Your task to perform on an android device: turn off priority inbox in the gmail app Image 0: 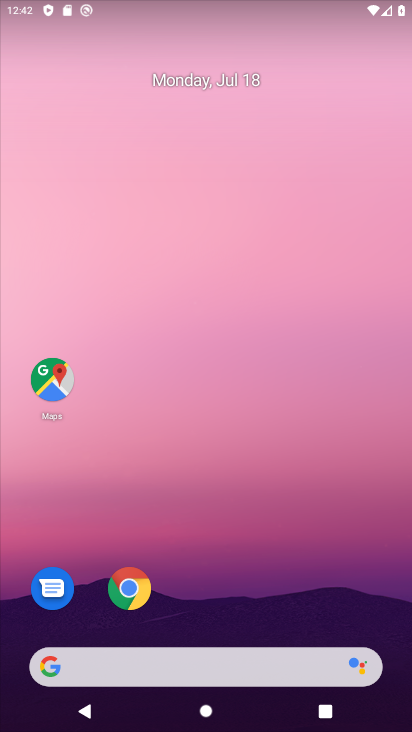
Step 0: drag from (184, 677) to (167, 234)
Your task to perform on an android device: turn off priority inbox in the gmail app Image 1: 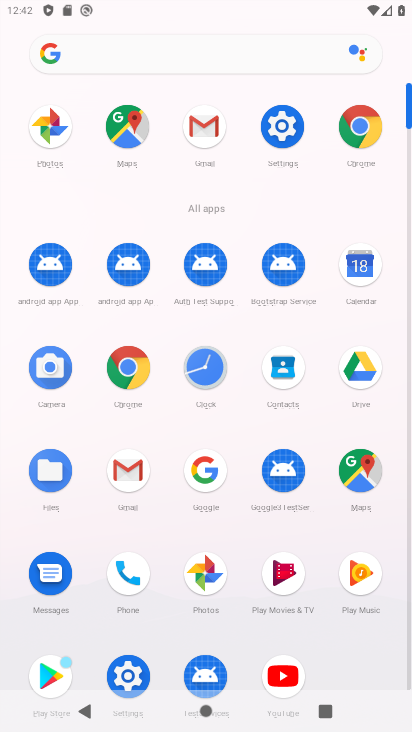
Step 1: click (142, 475)
Your task to perform on an android device: turn off priority inbox in the gmail app Image 2: 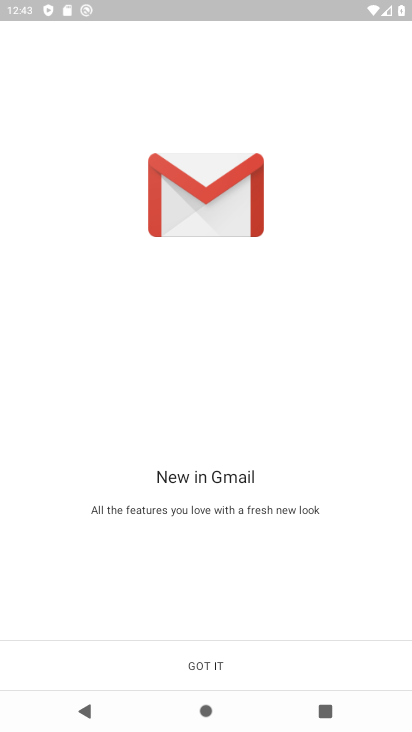
Step 2: click (200, 654)
Your task to perform on an android device: turn off priority inbox in the gmail app Image 3: 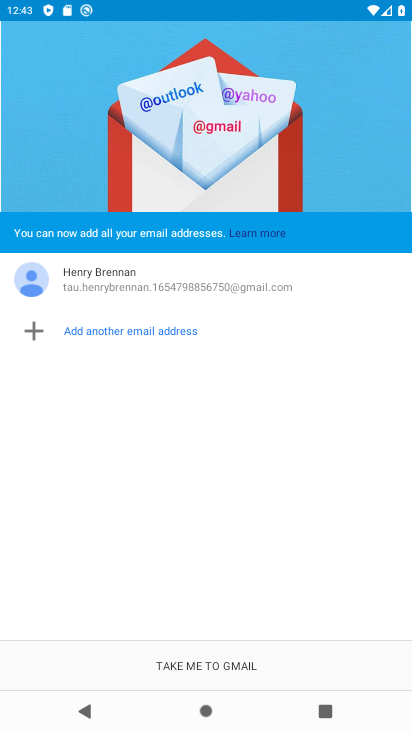
Step 3: click (193, 658)
Your task to perform on an android device: turn off priority inbox in the gmail app Image 4: 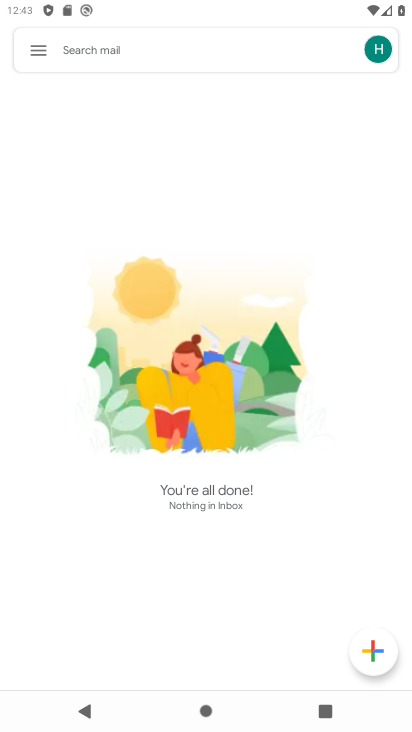
Step 4: click (48, 66)
Your task to perform on an android device: turn off priority inbox in the gmail app Image 5: 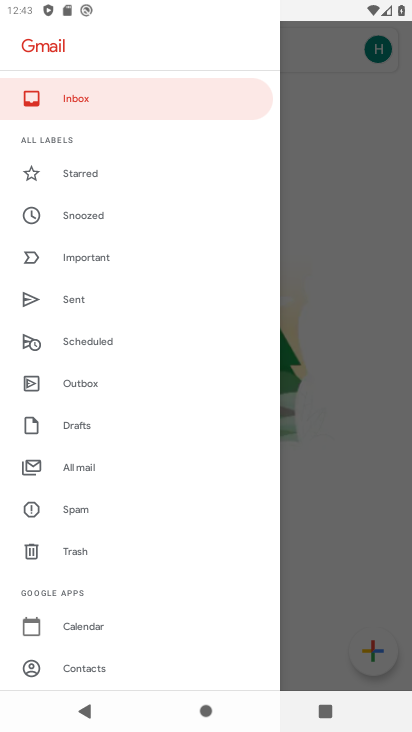
Step 5: drag from (95, 657) to (132, 99)
Your task to perform on an android device: turn off priority inbox in the gmail app Image 6: 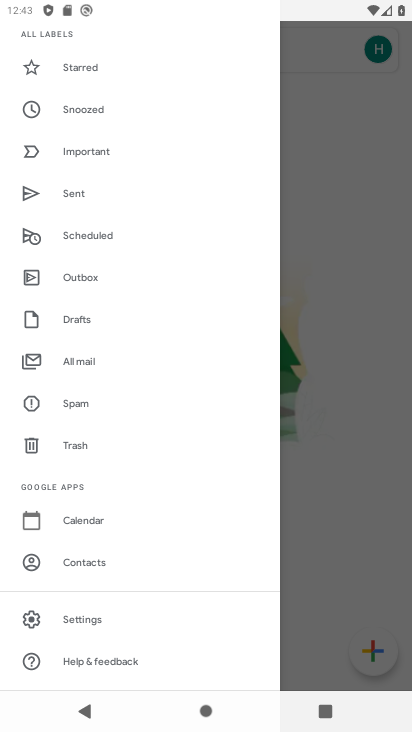
Step 6: click (73, 626)
Your task to perform on an android device: turn off priority inbox in the gmail app Image 7: 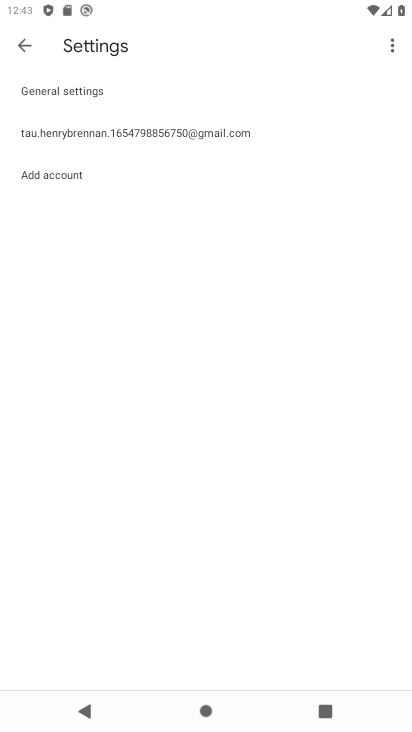
Step 7: click (78, 131)
Your task to perform on an android device: turn off priority inbox in the gmail app Image 8: 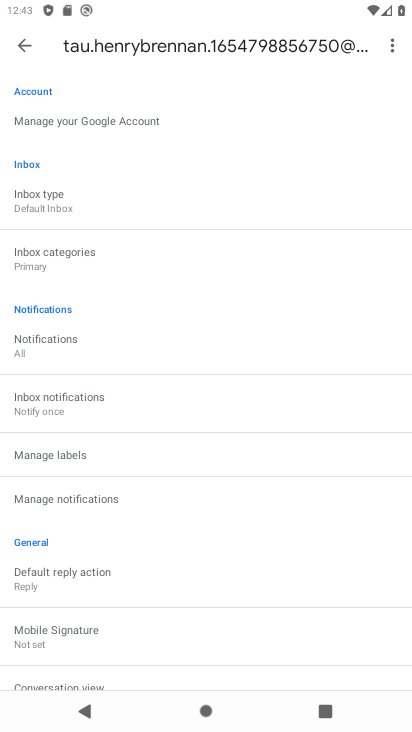
Step 8: drag from (100, 636) to (105, 318)
Your task to perform on an android device: turn off priority inbox in the gmail app Image 9: 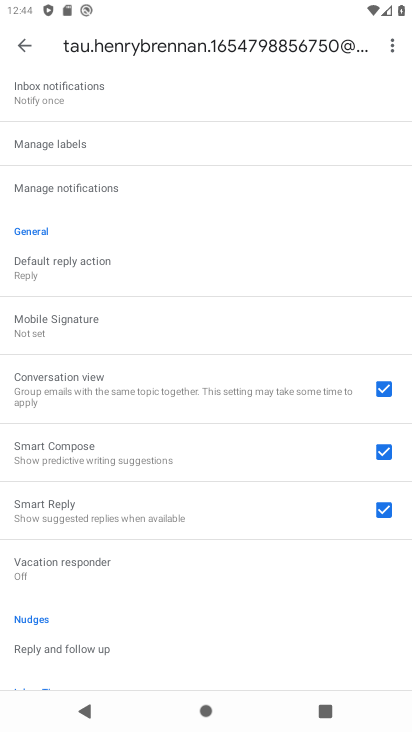
Step 9: drag from (117, 238) to (124, 659)
Your task to perform on an android device: turn off priority inbox in the gmail app Image 10: 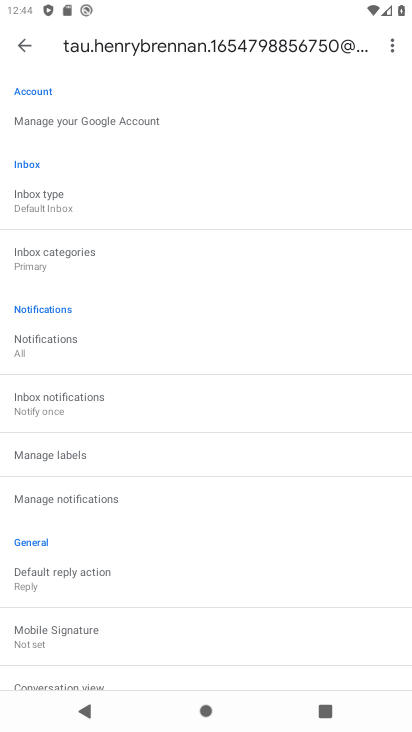
Step 10: click (68, 194)
Your task to perform on an android device: turn off priority inbox in the gmail app Image 11: 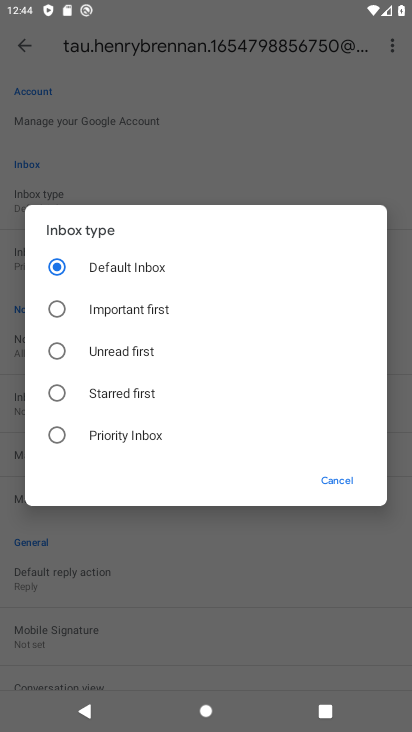
Step 11: click (109, 266)
Your task to perform on an android device: turn off priority inbox in the gmail app Image 12: 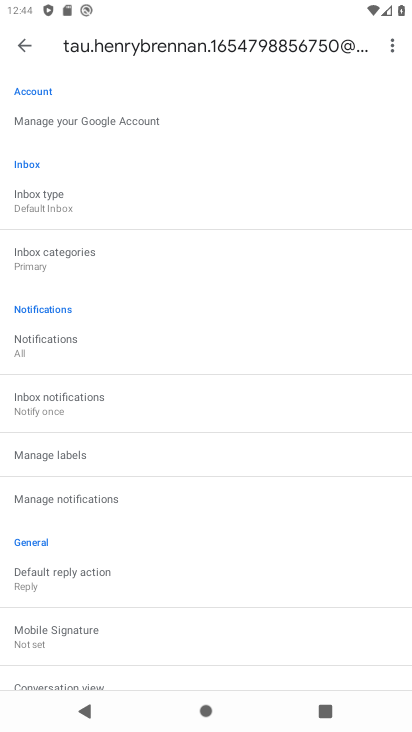
Step 12: task complete